Your task to perform on an android device: turn on wifi Image 0: 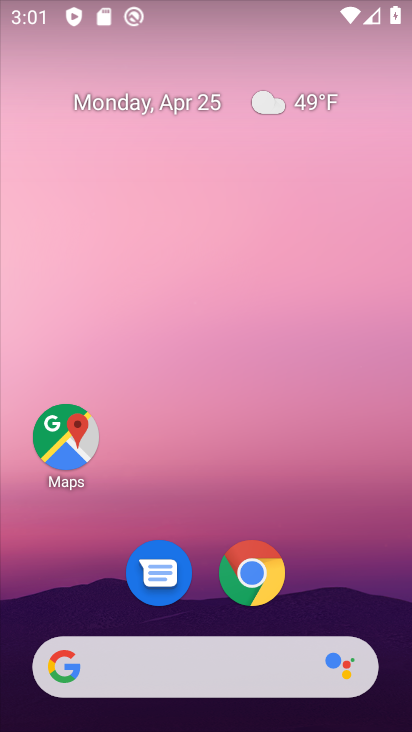
Step 0: drag from (329, 17) to (337, 350)
Your task to perform on an android device: turn on wifi Image 1: 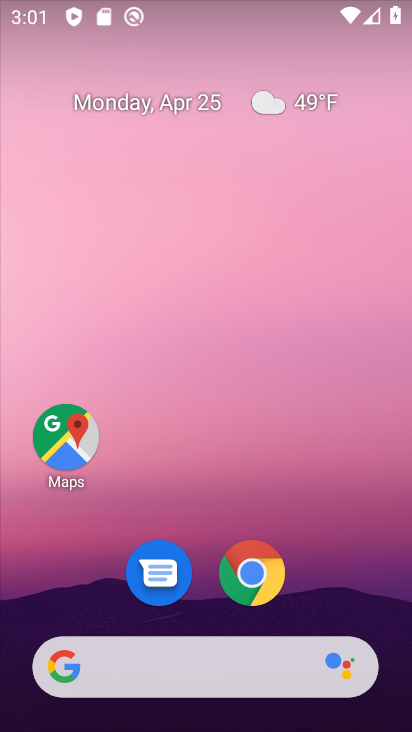
Step 1: task complete